Your task to perform on an android device: open app "Lyft - Rideshare, Bikes, Scooters & Transit" (install if not already installed) Image 0: 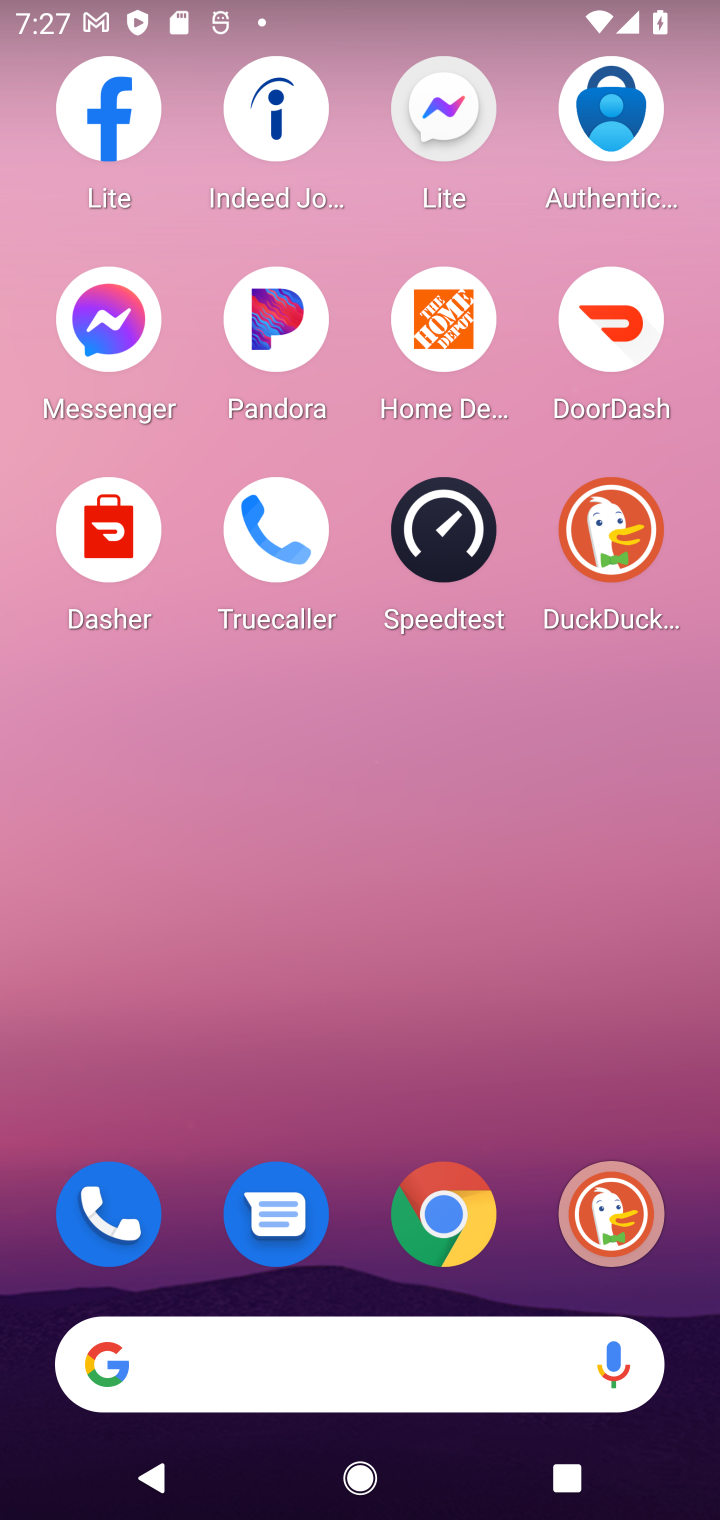
Step 0: drag from (279, 1009) to (372, 88)
Your task to perform on an android device: open app "Lyft - Rideshare, Bikes, Scooters & Transit" (install if not already installed) Image 1: 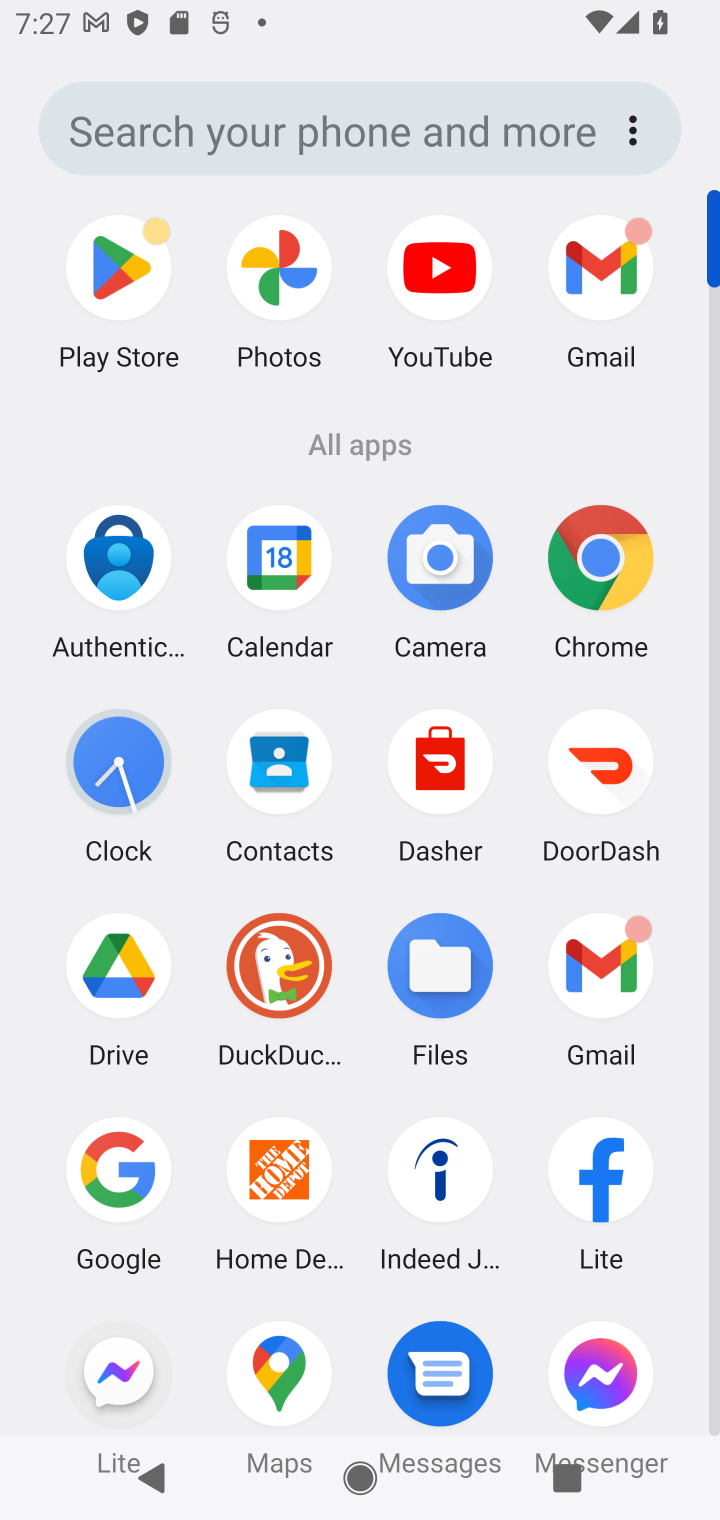
Step 1: click (98, 263)
Your task to perform on an android device: open app "Lyft - Rideshare, Bikes, Scooters & Transit" (install if not already installed) Image 2: 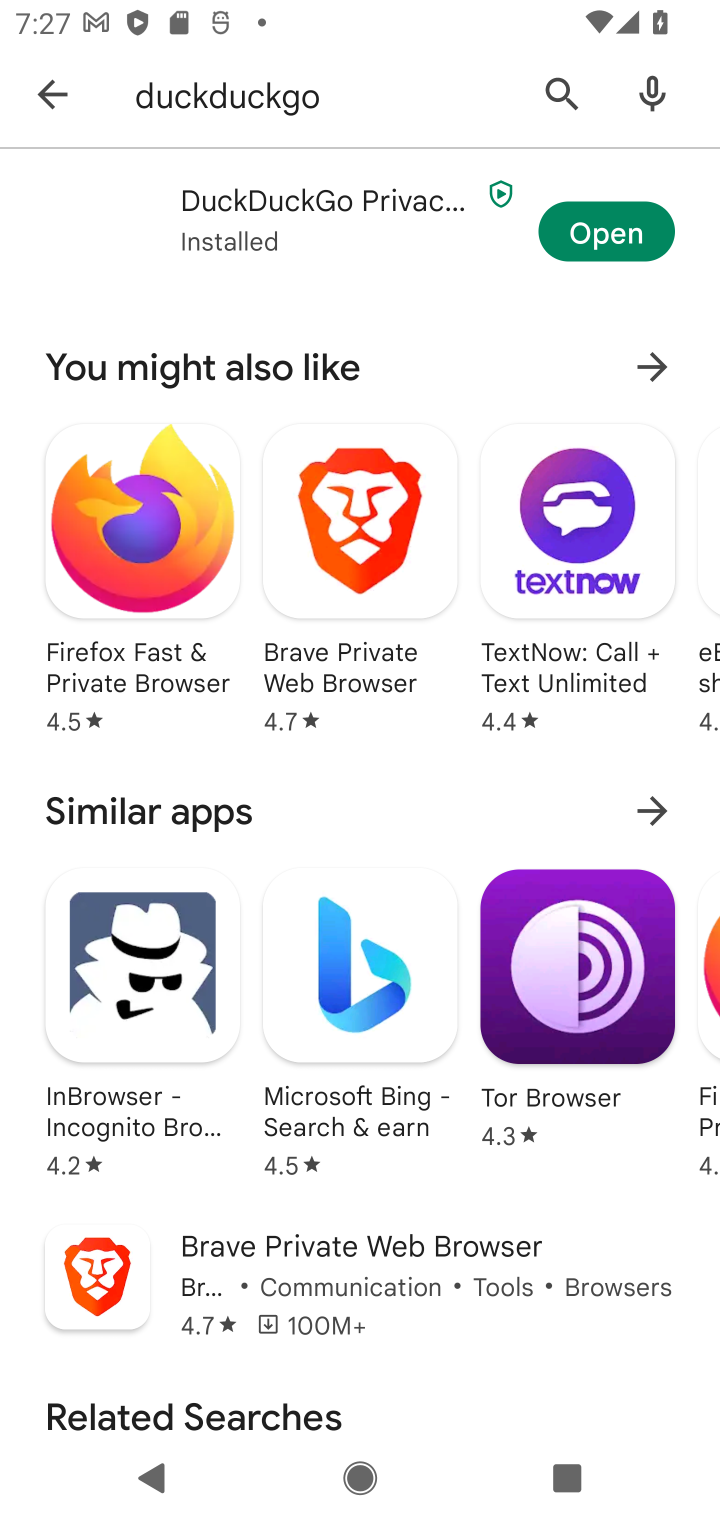
Step 2: click (562, 85)
Your task to perform on an android device: open app "Lyft - Rideshare, Bikes, Scooters & Transit" (install if not already installed) Image 3: 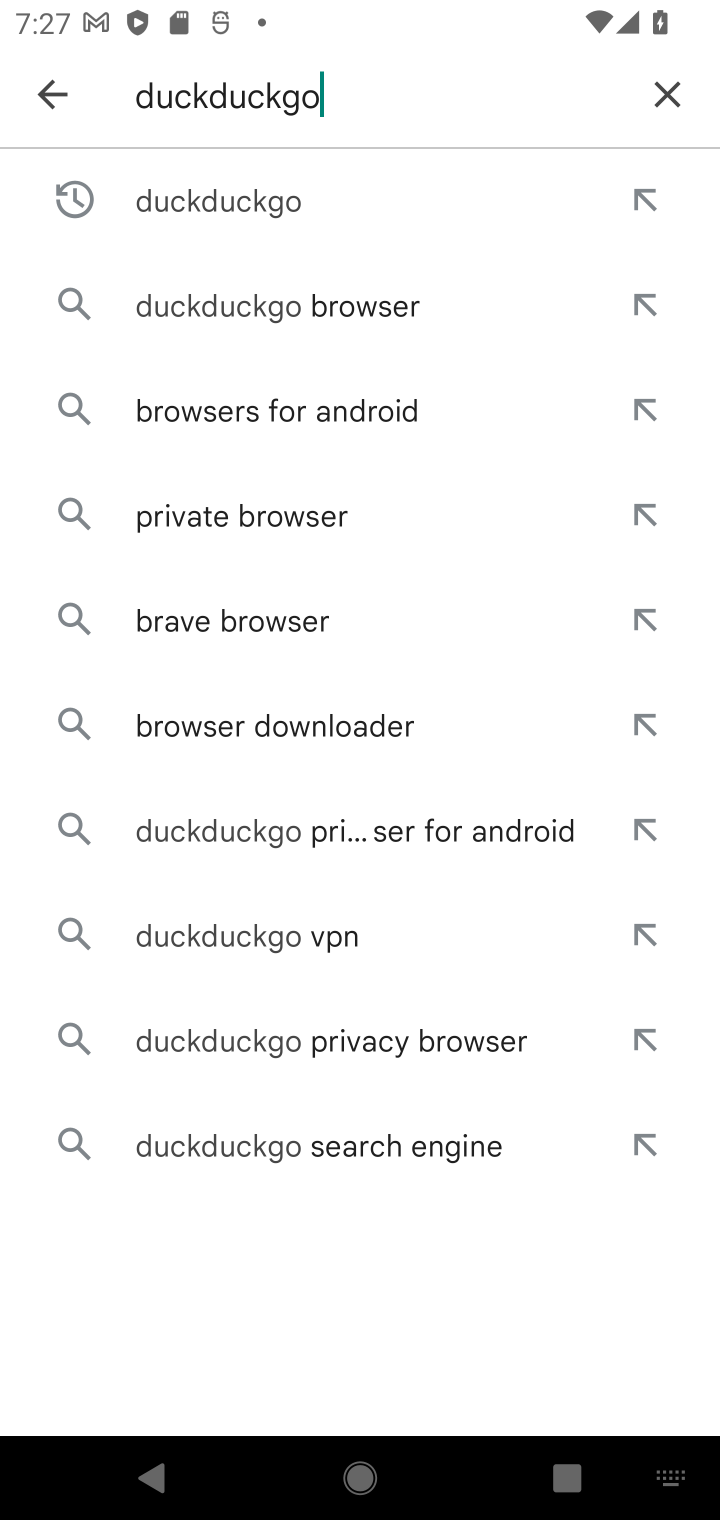
Step 3: click (655, 89)
Your task to perform on an android device: open app "Lyft - Rideshare, Bikes, Scooters & Transit" (install if not already installed) Image 4: 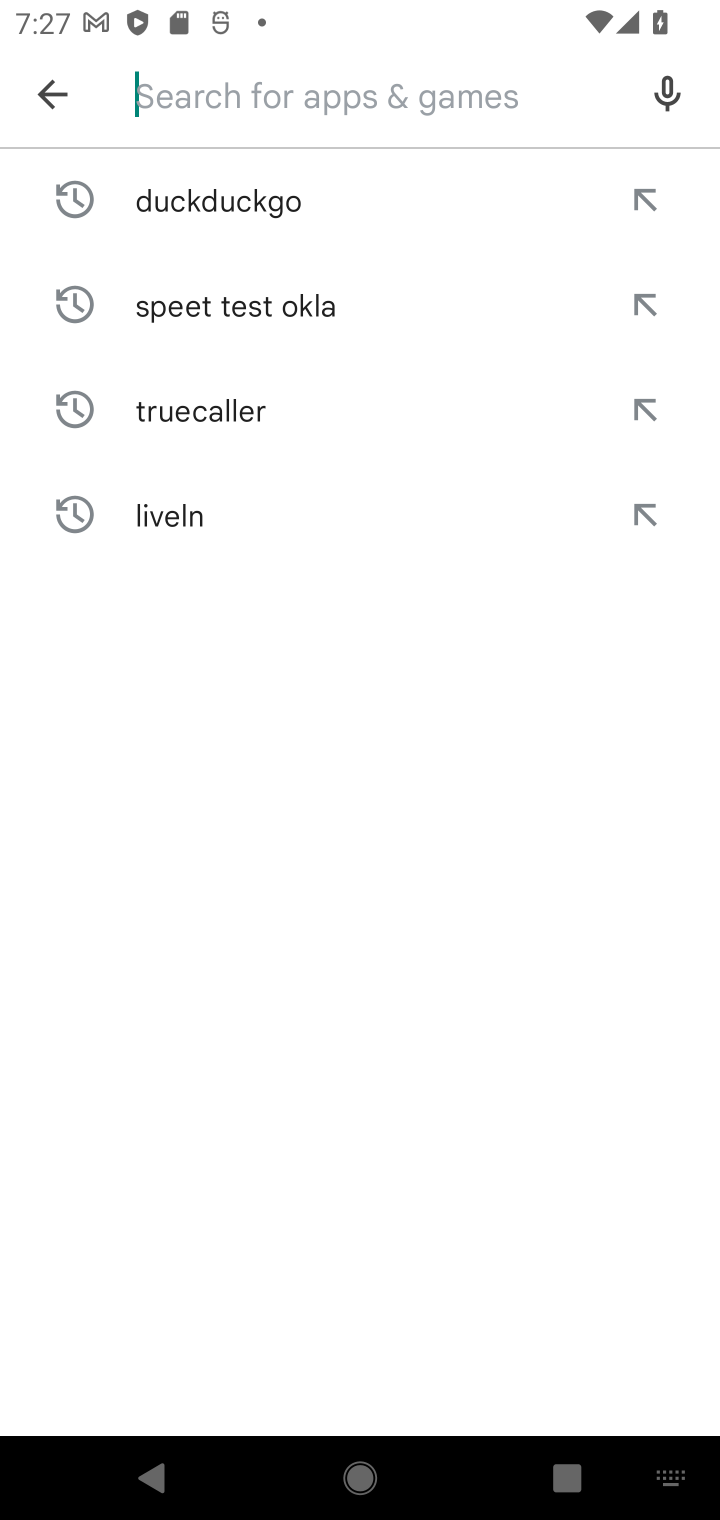
Step 4: click (395, 100)
Your task to perform on an android device: open app "Lyft - Rideshare, Bikes, Scooters & Transit" (install if not already installed) Image 5: 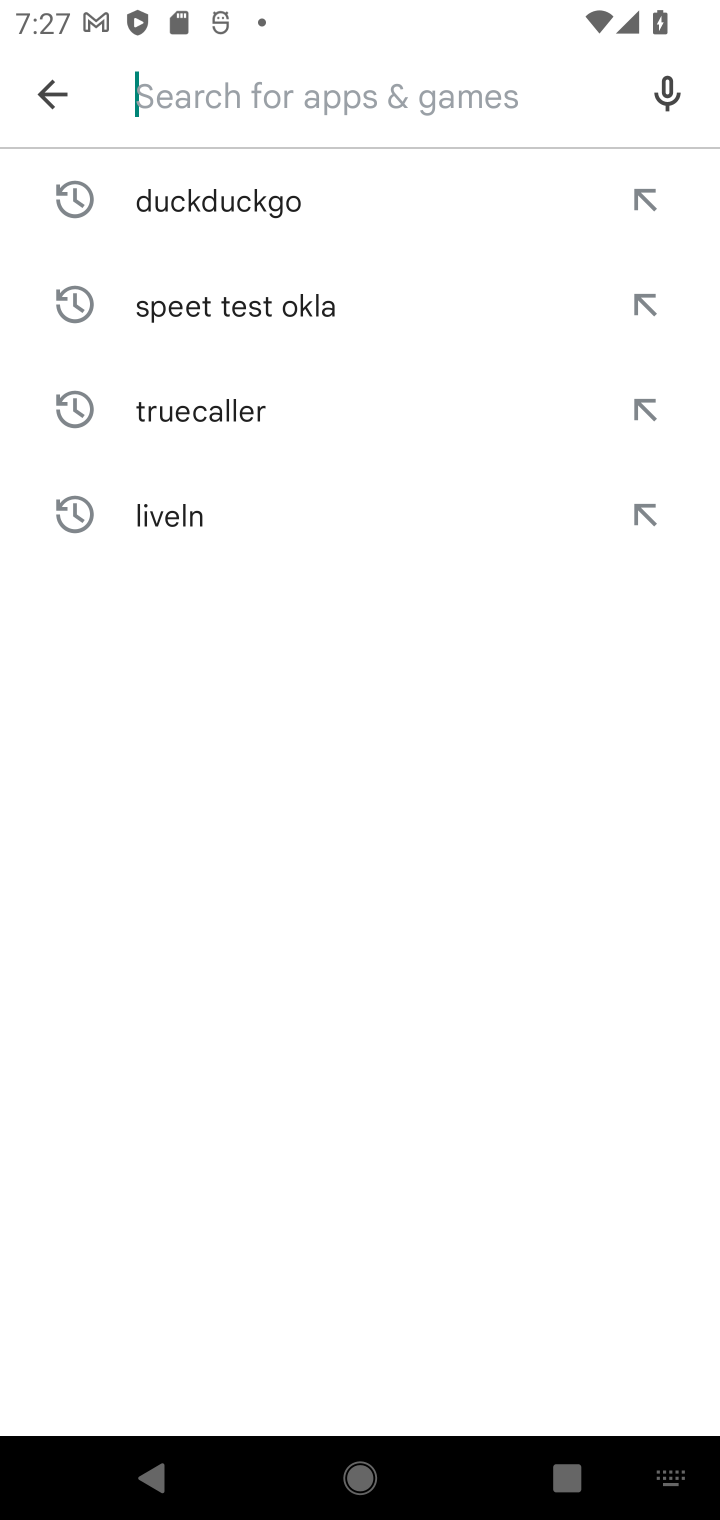
Step 5: type "lyft"
Your task to perform on an android device: open app "Lyft - Rideshare, Bikes, Scooters & Transit" (install if not already installed) Image 6: 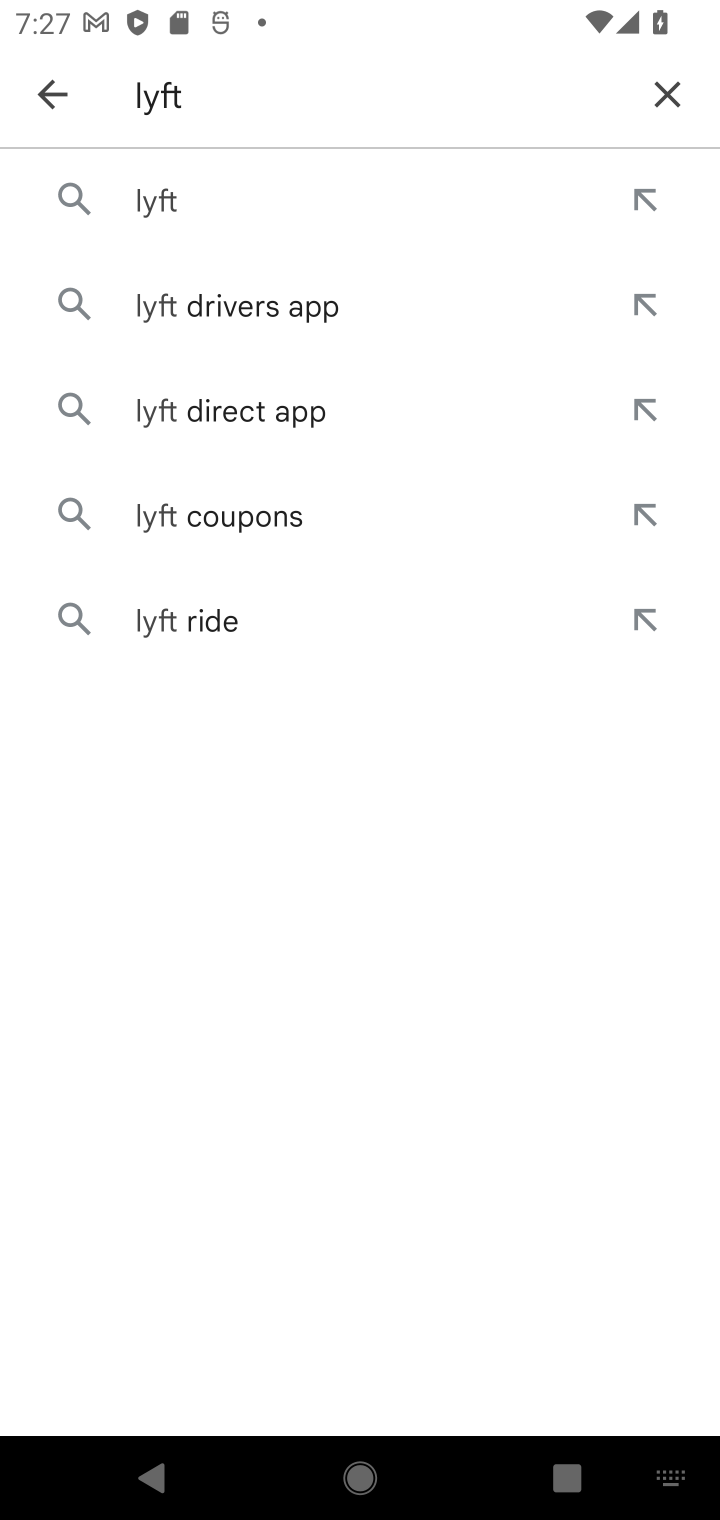
Step 6: click (189, 182)
Your task to perform on an android device: open app "Lyft - Rideshare, Bikes, Scooters & Transit" (install if not already installed) Image 7: 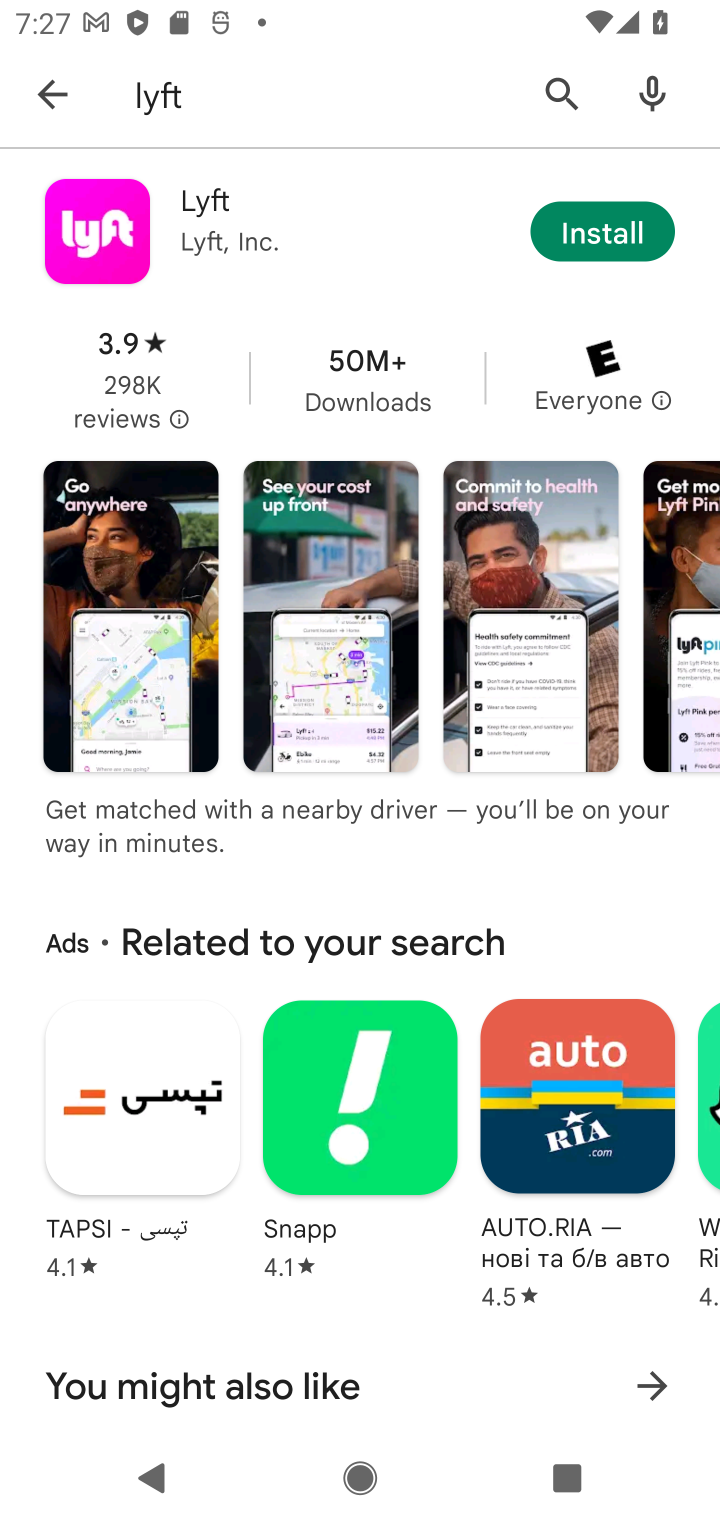
Step 7: click (594, 227)
Your task to perform on an android device: open app "Lyft - Rideshare, Bikes, Scooters & Transit" (install if not already installed) Image 8: 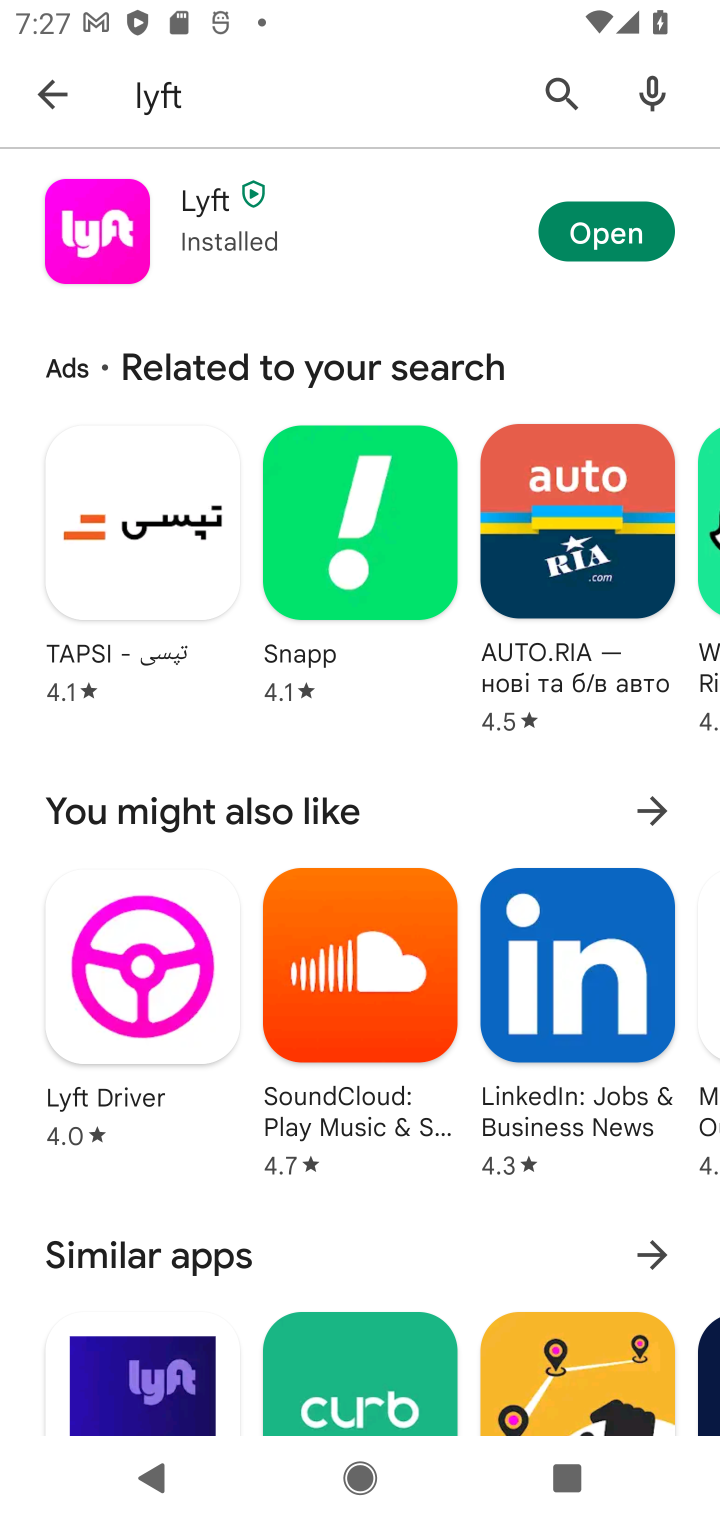
Step 8: click (616, 233)
Your task to perform on an android device: open app "Lyft - Rideshare, Bikes, Scooters & Transit" (install if not already installed) Image 9: 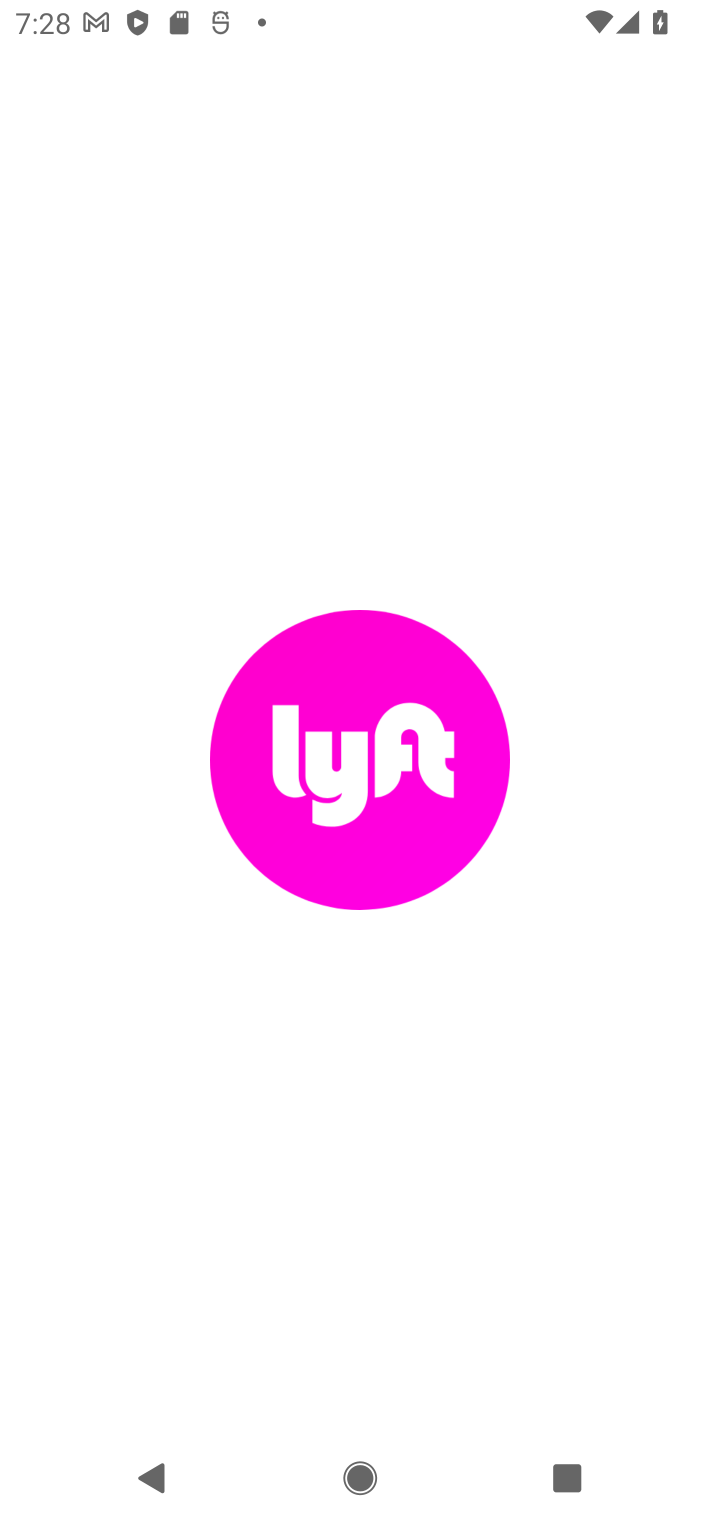
Step 9: task complete